Your task to perform on an android device: star an email in the gmail app Image 0: 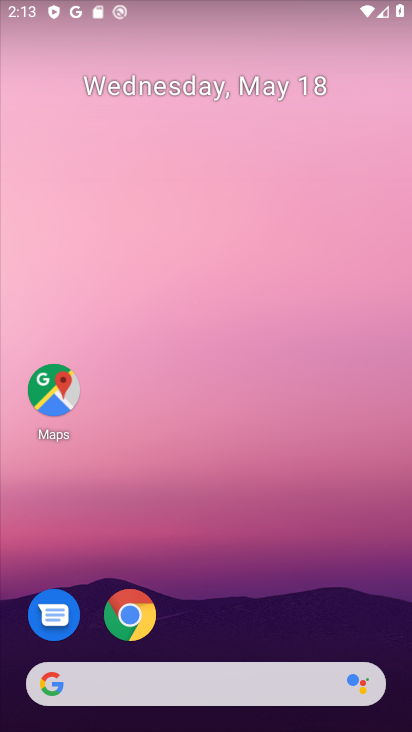
Step 0: drag from (224, 571) to (285, 117)
Your task to perform on an android device: star an email in the gmail app Image 1: 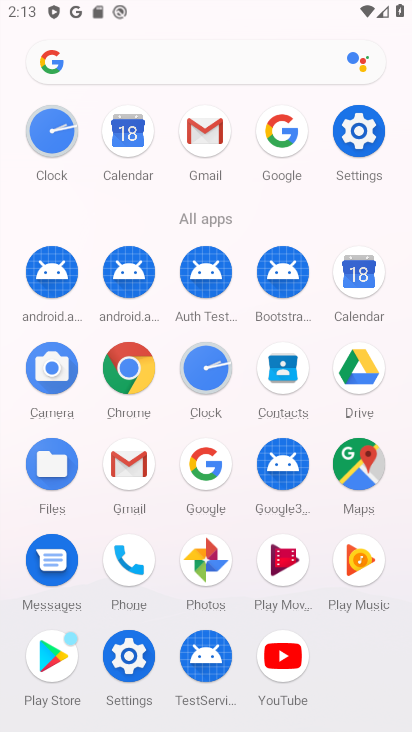
Step 1: click (204, 147)
Your task to perform on an android device: star an email in the gmail app Image 2: 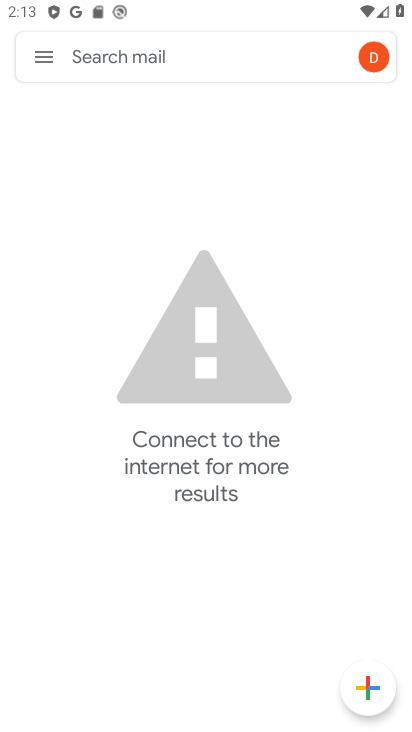
Step 2: click (37, 60)
Your task to perform on an android device: star an email in the gmail app Image 3: 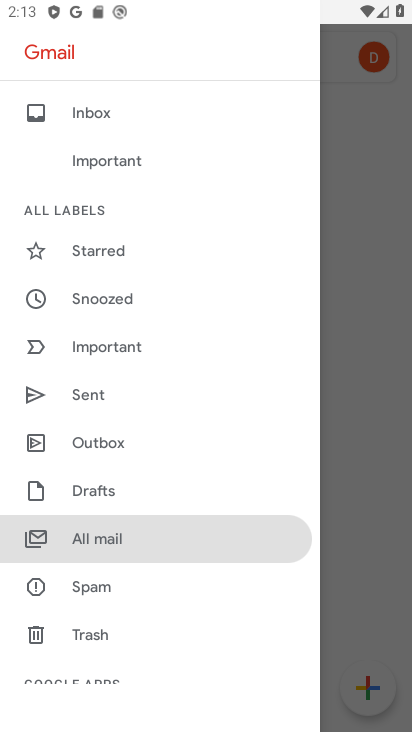
Step 3: click (107, 535)
Your task to perform on an android device: star an email in the gmail app Image 4: 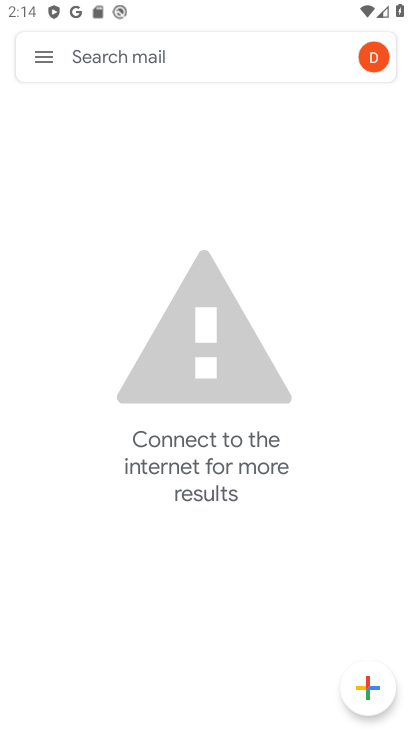
Step 4: task complete